Your task to perform on an android device: open wifi settings Image 0: 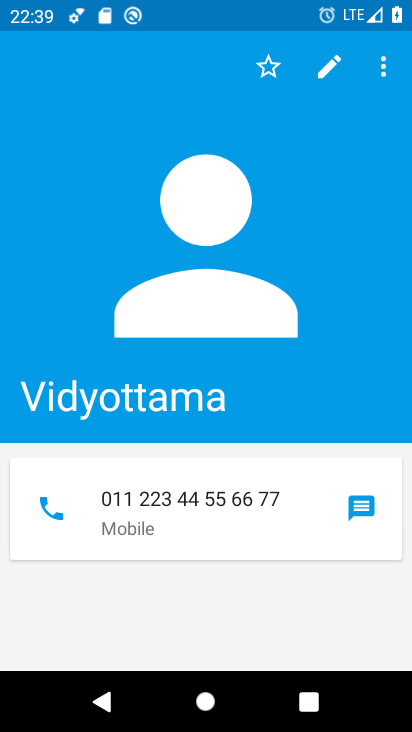
Step 0: press home button
Your task to perform on an android device: open wifi settings Image 1: 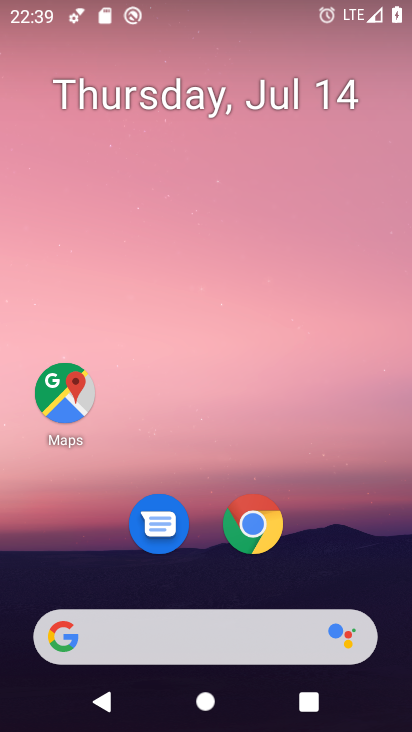
Step 1: drag from (334, 489) to (350, 64)
Your task to perform on an android device: open wifi settings Image 2: 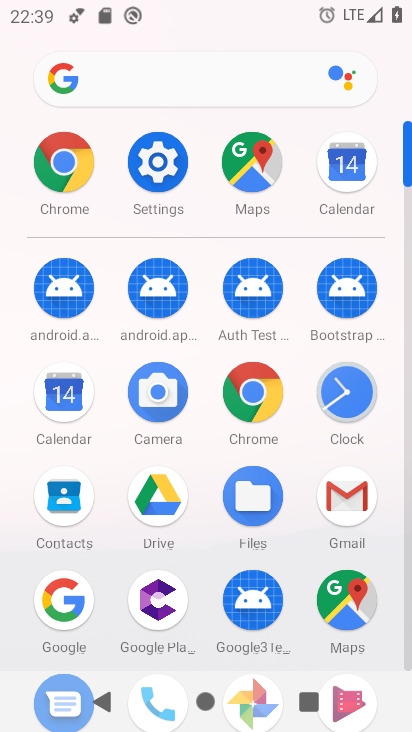
Step 2: click (164, 166)
Your task to perform on an android device: open wifi settings Image 3: 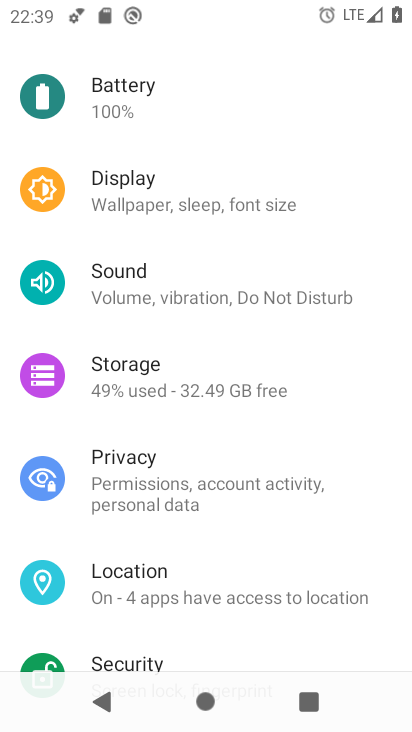
Step 3: drag from (194, 140) to (217, 578)
Your task to perform on an android device: open wifi settings Image 4: 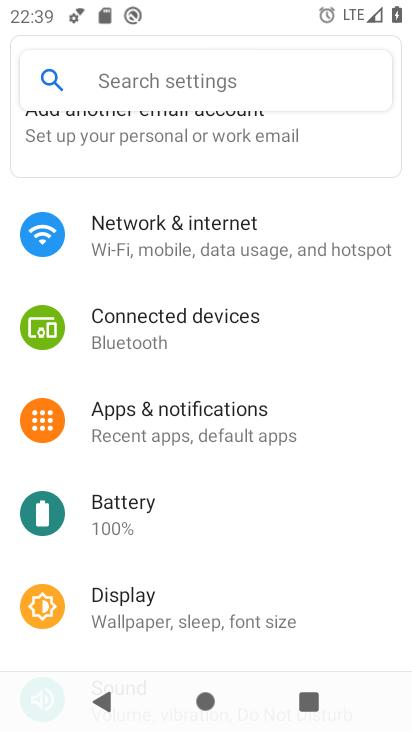
Step 4: click (239, 236)
Your task to perform on an android device: open wifi settings Image 5: 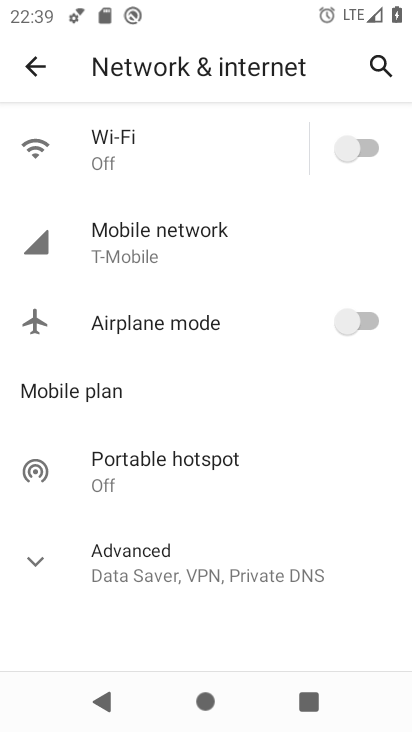
Step 5: click (119, 147)
Your task to perform on an android device: open wifi settings Image 6: 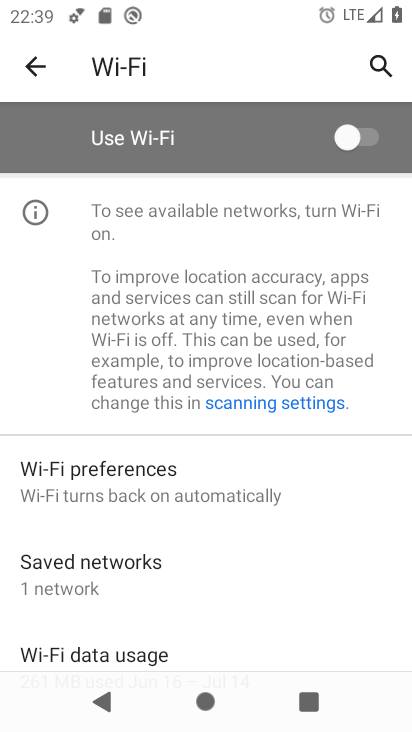
Step 6: task complete